Your task to perform on an android device: Turn on the flashlight Image 0: 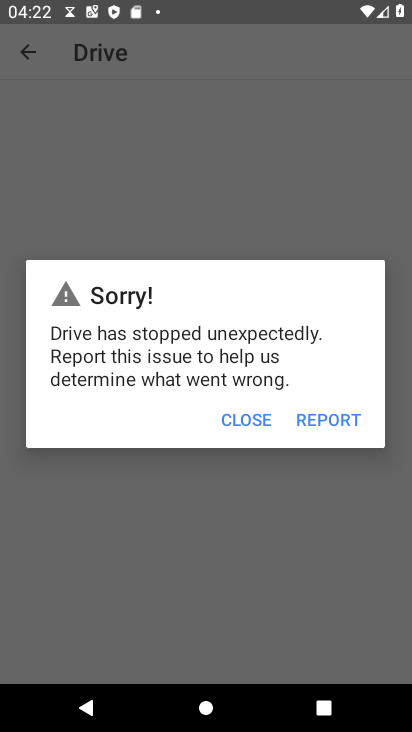
Step 0: press home button
Your task to perform on an android device: Turn on the flashlight Image 1: 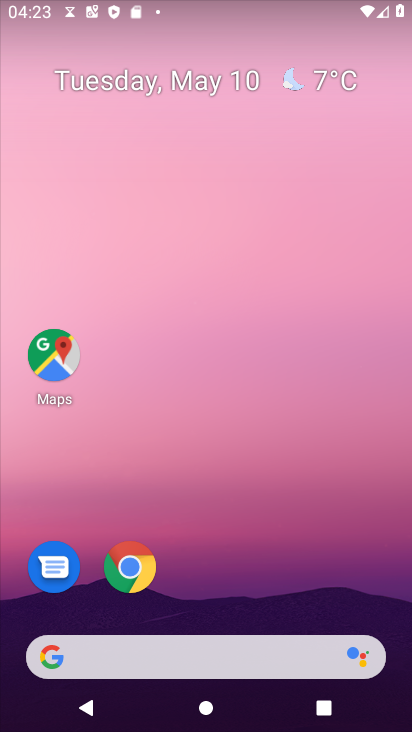
Step 1: drag from (222, 565) to (228, 0)
Your task to perform on an android device: Turn on the flashlight Image 2: 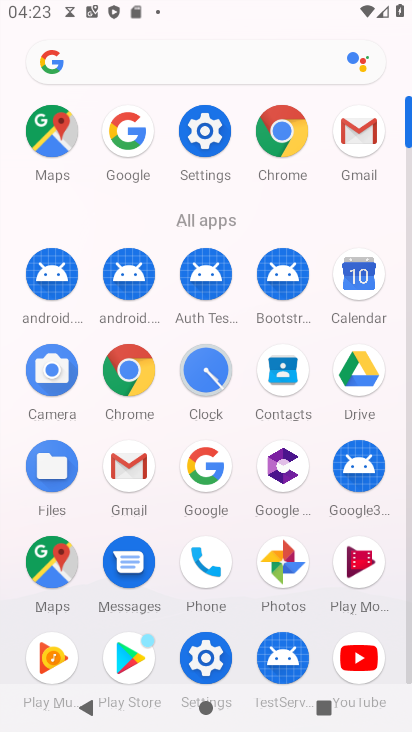
Step 2: click (204, 128)
Your task to perform on an android device: Turn on the flashlight Image 3: 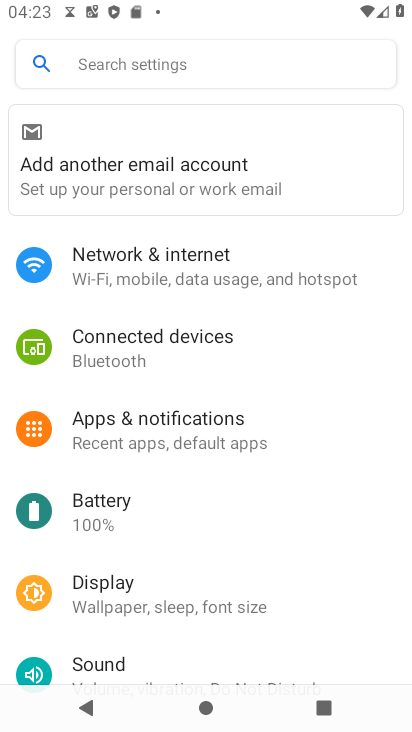
Step 3: drag from (144, 389) to (181, 297)
Your task to perform on an android device: Turn on the flashlight Image 4: 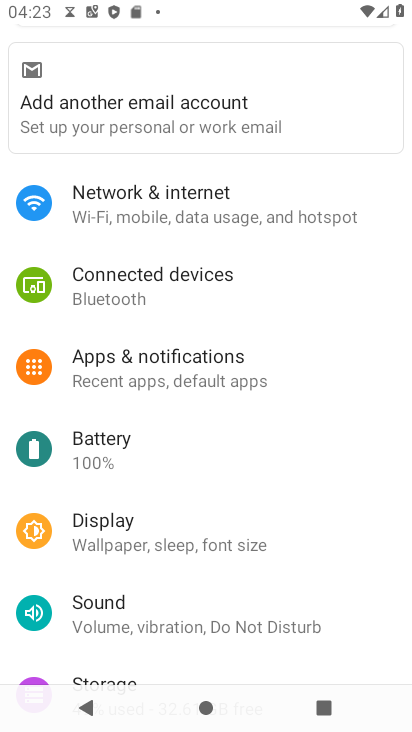
Step 4: drag from (179, 465) to (204, 345)
Your task to perform on an android device: Turn on the flashlight Image 5: 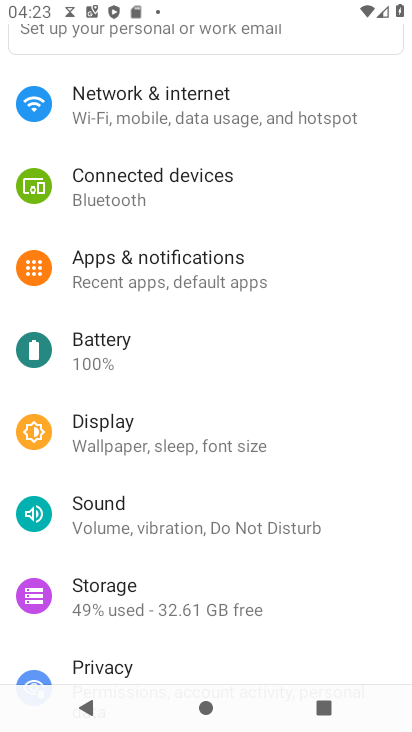
Step 5: click (173, 447)
Your task to perform on an android device: Turn on the flashlight Image 6: 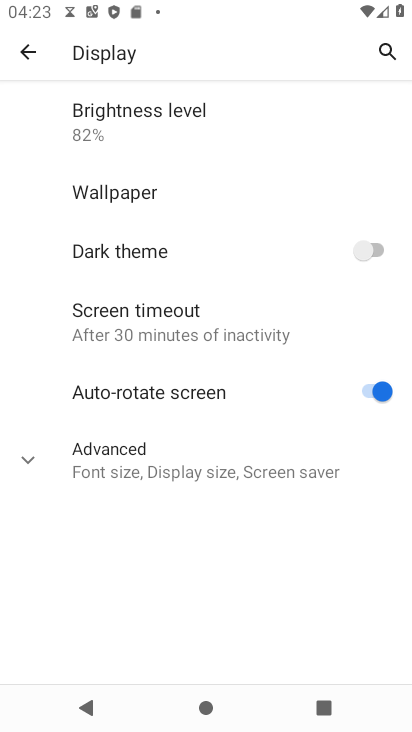
Step 6: click (99, 463)
Your task to perform on an android device: Turn on the flashlight Image 7: 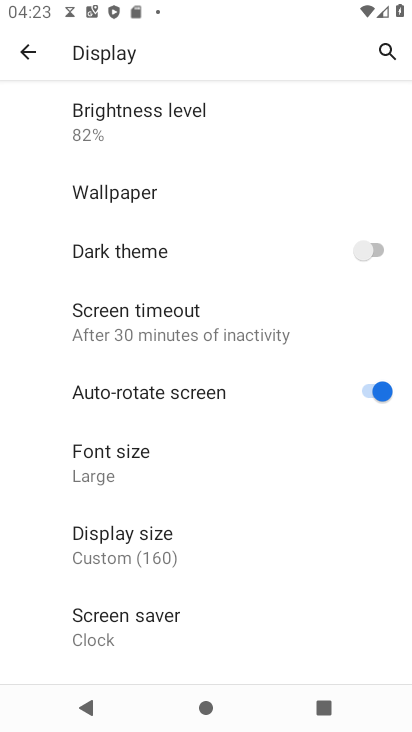
Step 7: drag from (132, 514) to (178, 366)
Your task to perform on an android device: Turn on the flashlight Image 8: 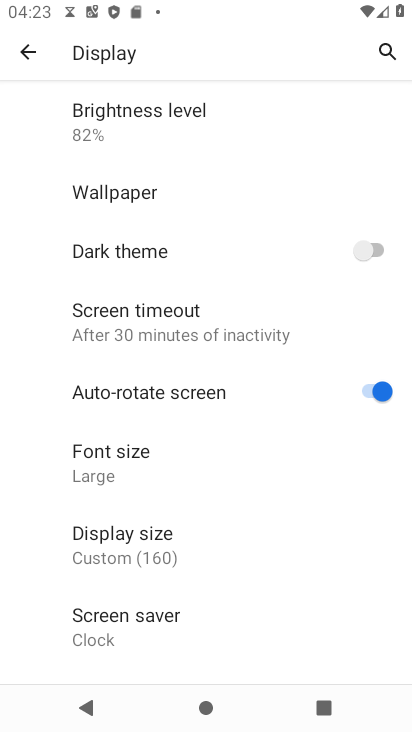
Step 8: press back button
Your task to perform on an android device: Turn on the flashlight Image 9: 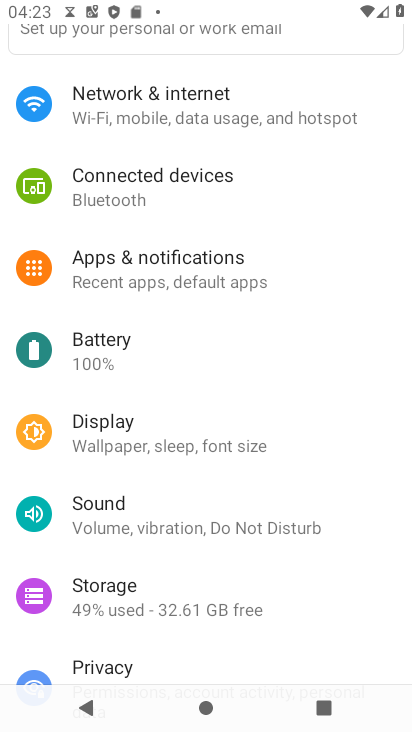
Step 9: drag from (153, 523) to (182, 323)
Your task to perform on an android device: Turn on the flashlight Image 10: 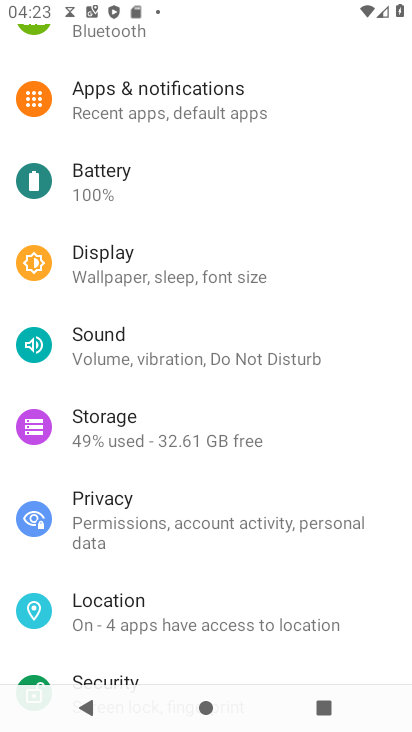
Step 10: drag from (162, 491) to (201, 259)
Your task to perform on an android device: Turn on the flashlight Image 11: 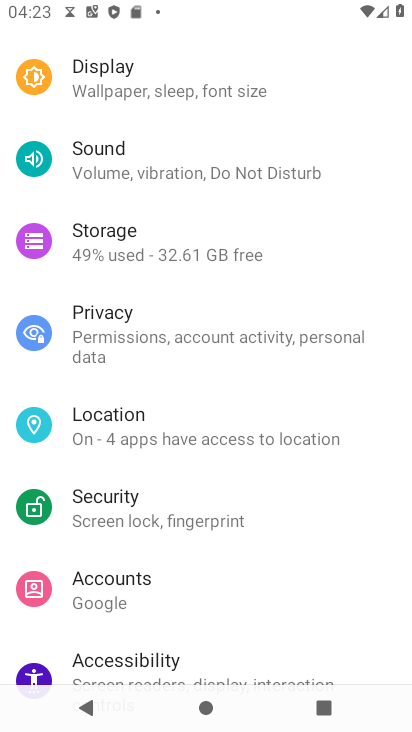
Step 11: drag from (150, 477) to (165, 292)
Your task to perform on an android device: Turn on the flashlight Image 12: 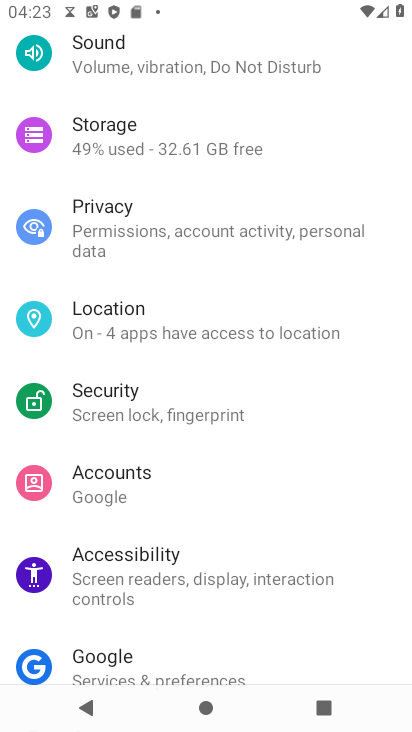
Step 12: drag from (159, 476) to (233, 266)
Your task to perform on an android device: Turn on the flashlight Image 13: 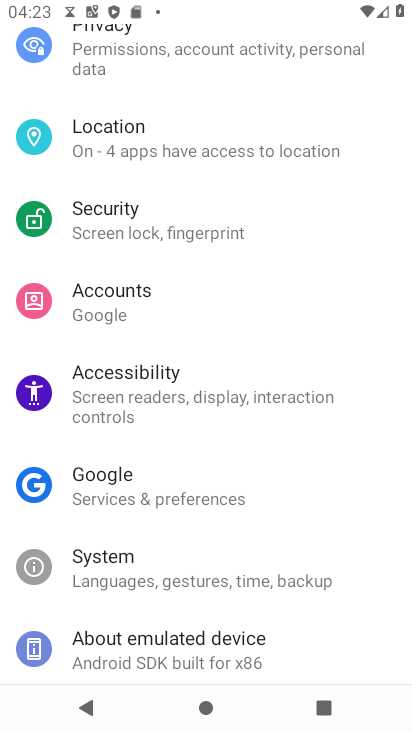
Step 13: drag from (173, 518) to (224, 342)
Your task to perform on an android device: Turn on the flashlight Image 14: 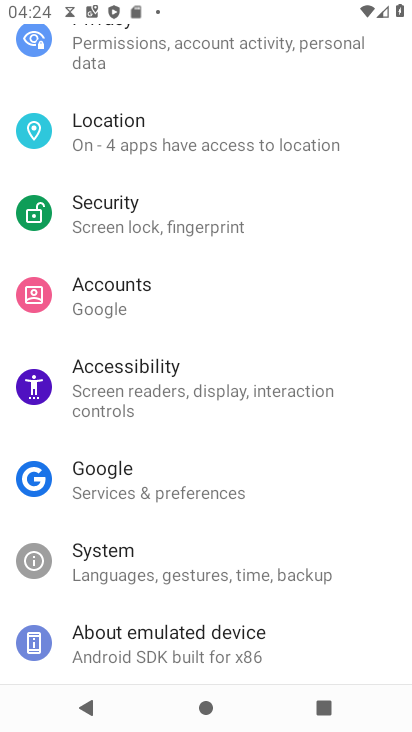
Step 14: click (121, 395)
Your task to perform on an android device: Turn on the flashlight Image 15: 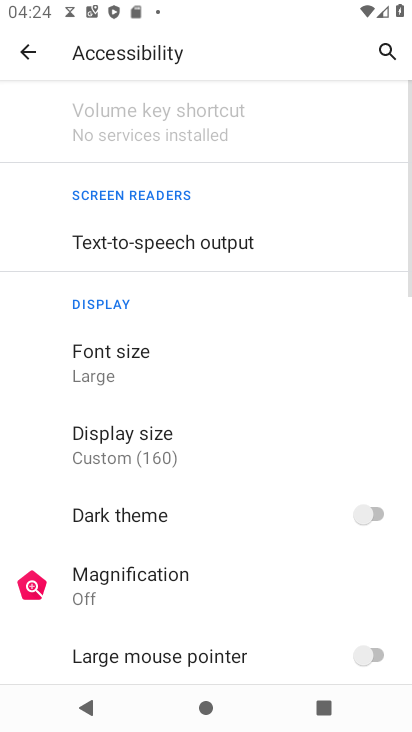
Step 15: drag from (161, 525) to (196, 358)
Your task to perform on an android device: Turn on the flashlight Image 16: 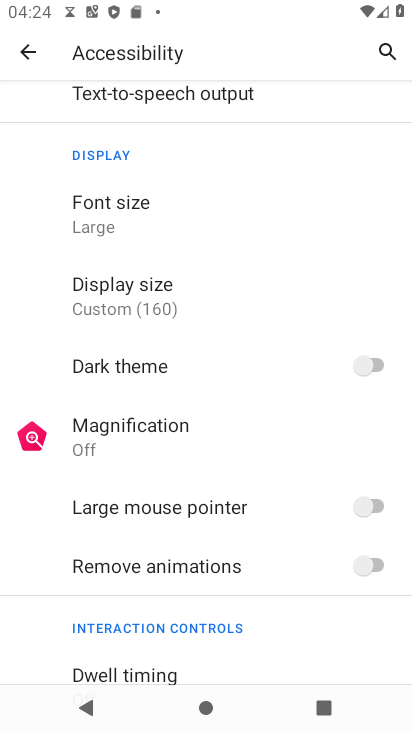
Step 16: drag from (131, 502) to (207, 385)
Your task to perform on an android device: Turn on the flashlight Image 17: 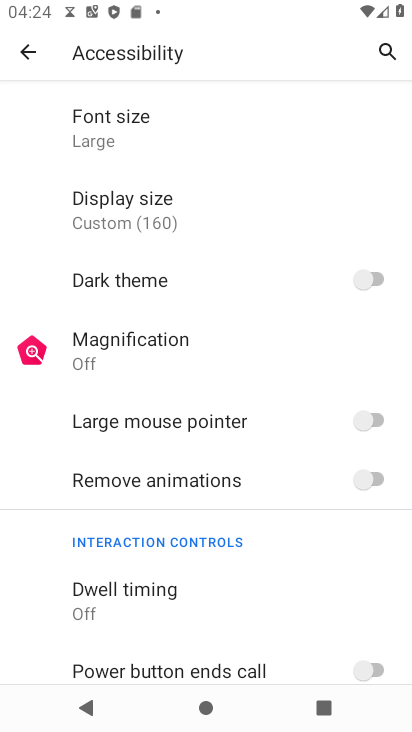
Step 17: drag from (88, 503) to (164, 327)
Your task to perform on an android device: Turn on the flashlight Image 18: 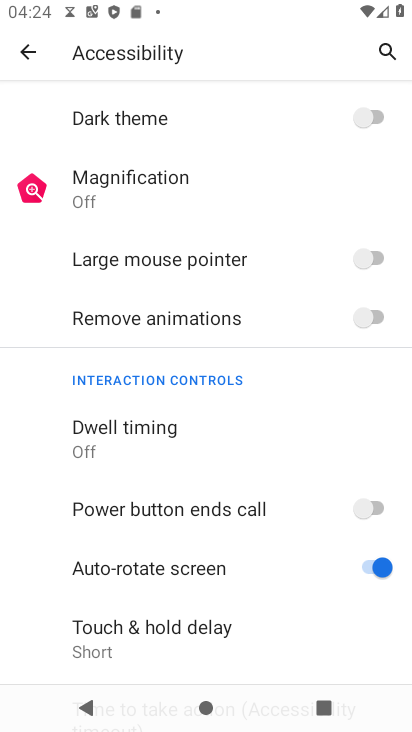
Step 18: drag from (114, 525) to (168, 348)
Your task to perform on an android device: Turn on the flashlight Image 19: 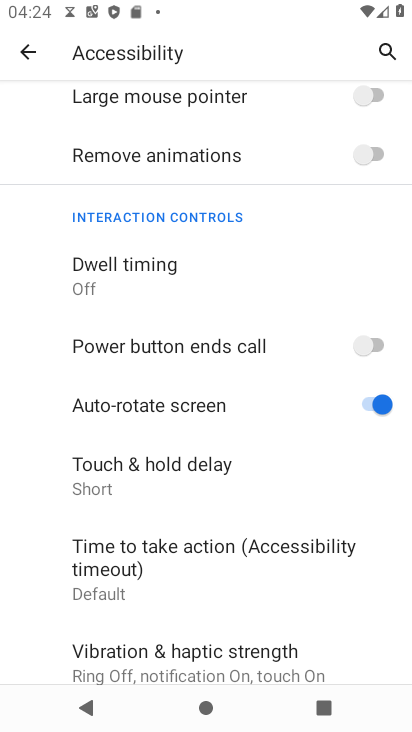
Step 19: drag from (139, 474) to (211, 320)
Your task to perform on an android device: Turn on the flashlight Image 20: 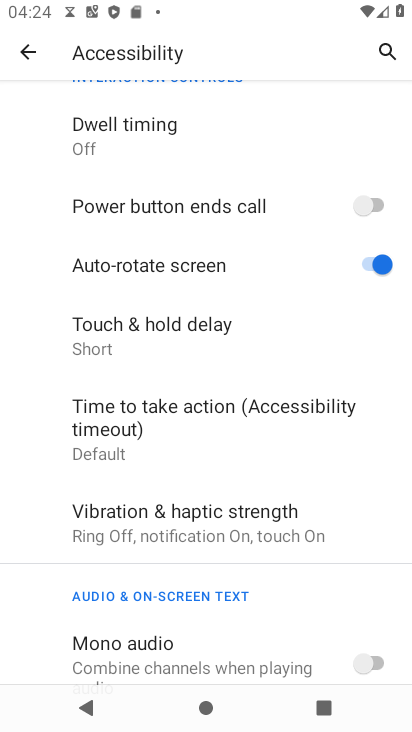
Step 20: drag from (115, 484) to (222, 324)
Your task to perform on an android device: Turn on the flashlight Image 21: 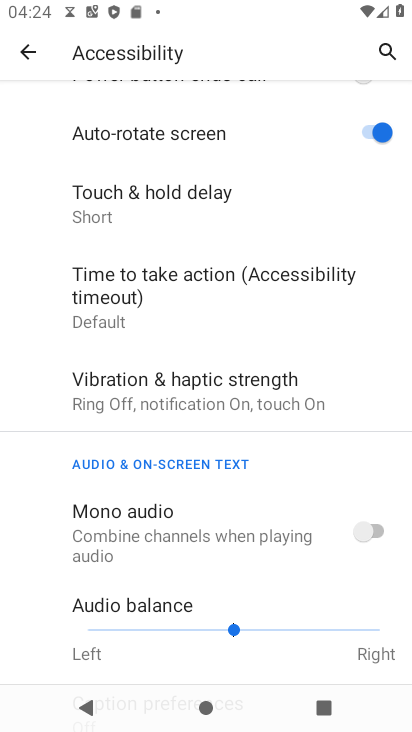
Step 21: drag from (165, 479) to (206, 311)
Your task to perform on an android device: Turn on the flashlight Image 22: 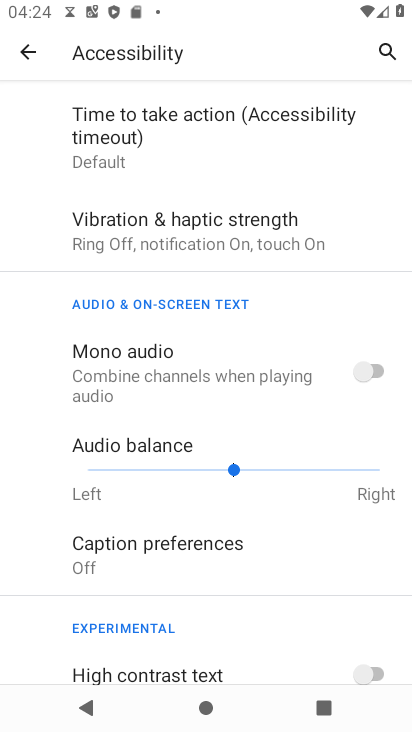
Step 22: drag from (149, 424) to (133, 254)
Your task to perform on an android device: Turn on the flashlight Image 23: 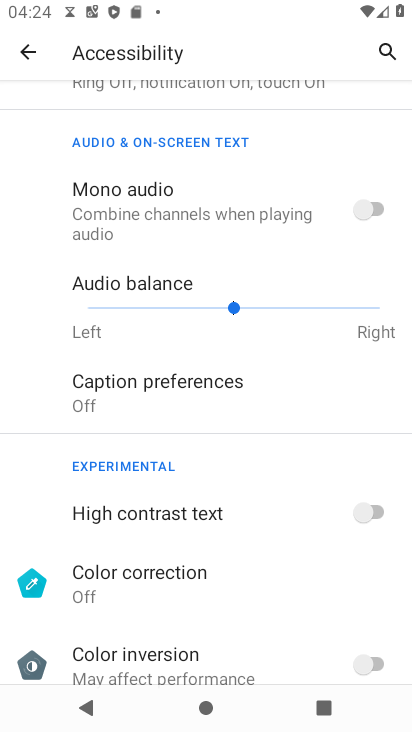
Step 23: drag from (127, 452) to (162, 282)
Your task to perform on an android device: Turn on the flashlight Image 24: 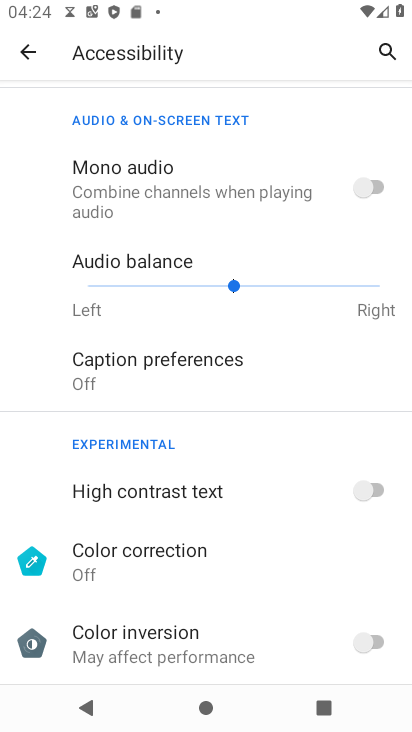
Step 24: press back button
Your task to perform on an android device: Turn on the flashlight Image 25: 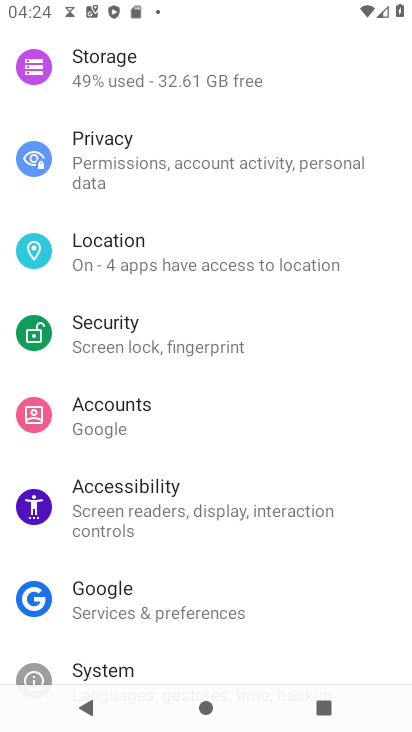
Step 25: drag from (193, 361) to (236, 484)
Your task to perform on an android device: Turn on the flashlight Image 26: 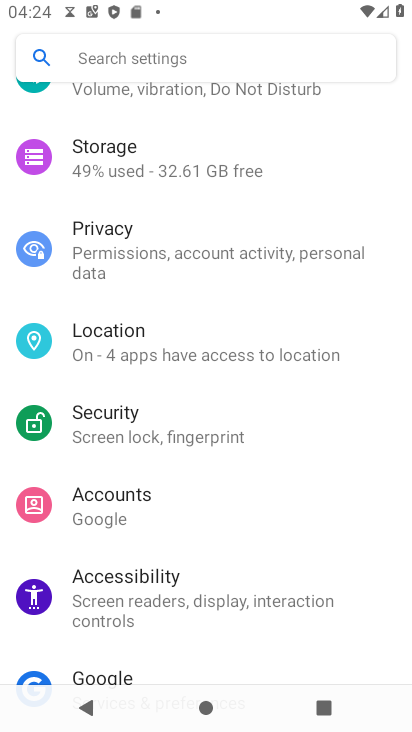
Step 26: drag from (193, 260) to (214, 436)
Your task to perform on an android device: Turn on the flashlight Image 27: 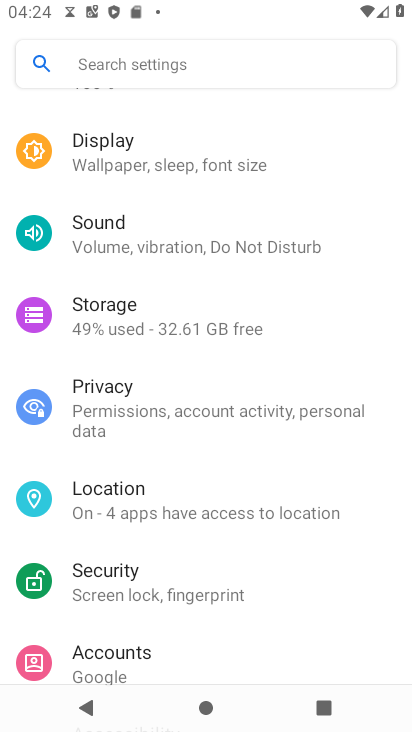
Step 27: drag from (202, 236) to (246, 366)
Your task to perform on an android device: Turn on the flashlight Image 28: 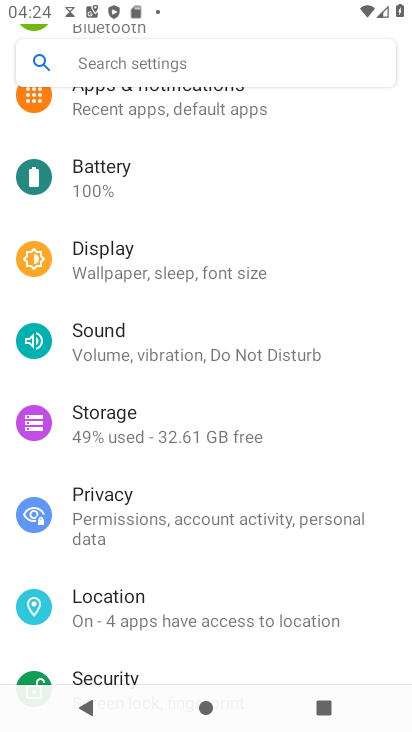
Step 28: click (179, 276)
Your task to perform on an android device: Turn on the flashlight Image 29: 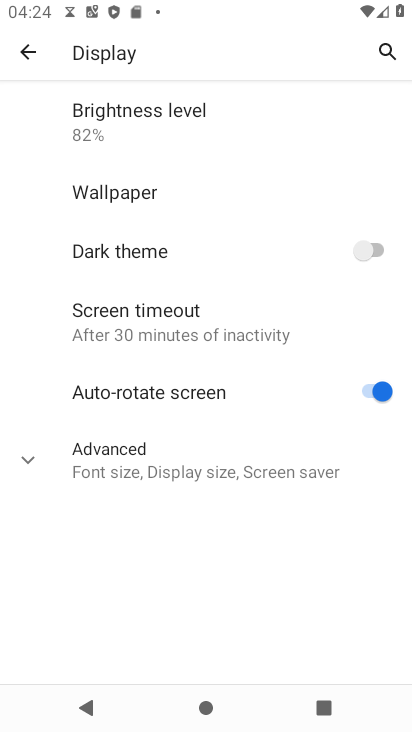
Step 29: task complete